Your task to perform on an android device: Search for pizza restaurants on Maps Image 0: 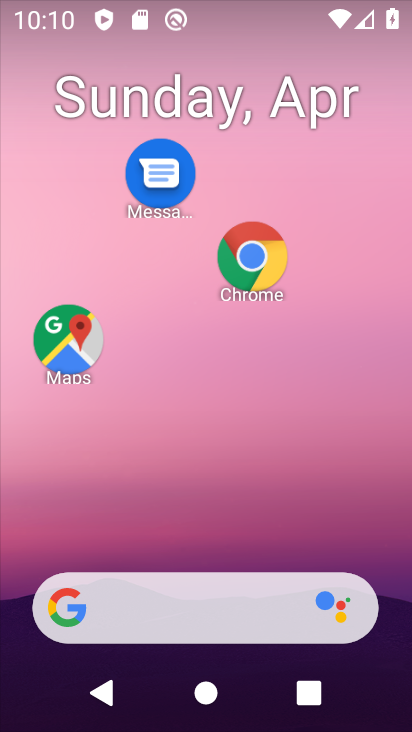
Step 0: drag from (223, 725) to (223, 141)
Your task to perform on an android device: Search for pizza restaurants on Maps Image 1: 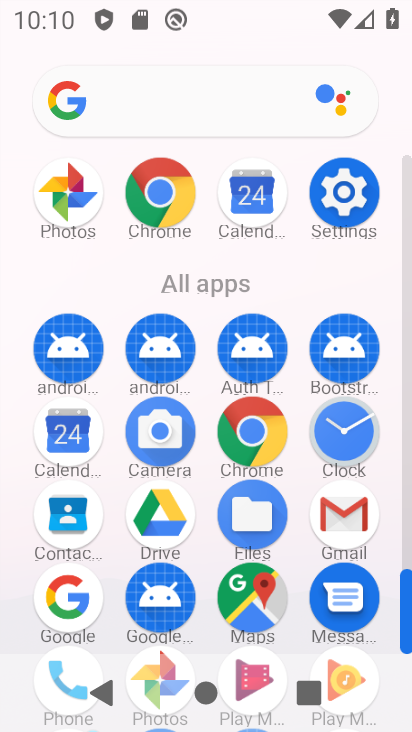
Step 1: click (246, 596)
Your task to perform on an android device: Search for pizza restaurants on Maps Image 2: 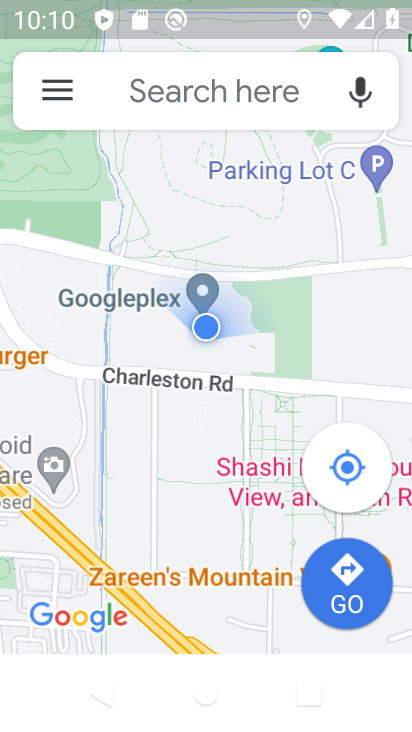
Step 2: click (206, 90)
Your task to perform on an android device: Search for pizza restaurants on Maps Image 3: 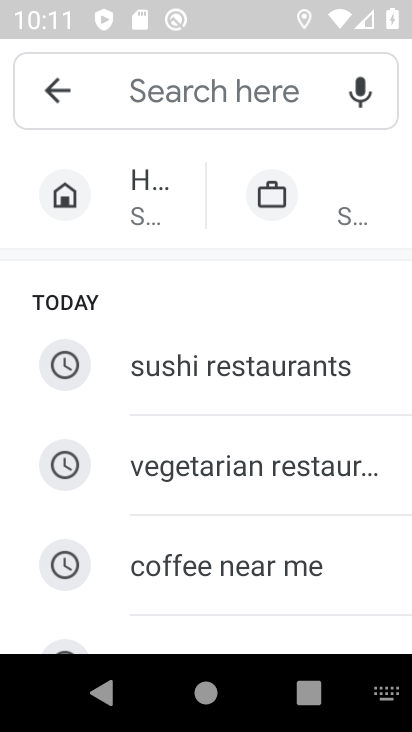
Step 3: type "pizza restaurants"
Your task to perform on an android device: Search for pizza restaurants on Maps Image 4: 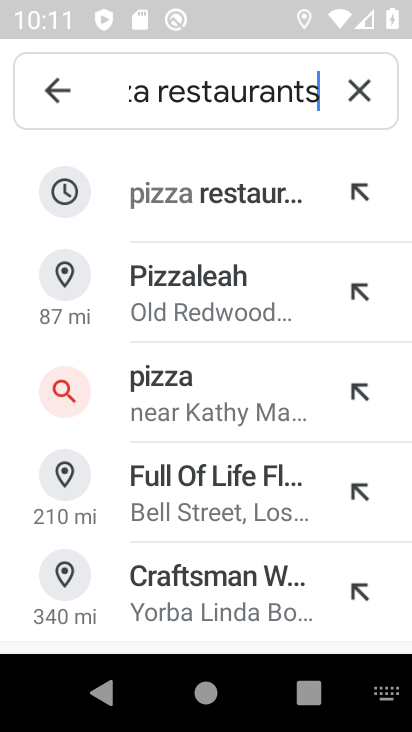
Step 4: click (218, 189)
Your task to perform on an android device: Search for pizza restaurants on Maps Image 5: 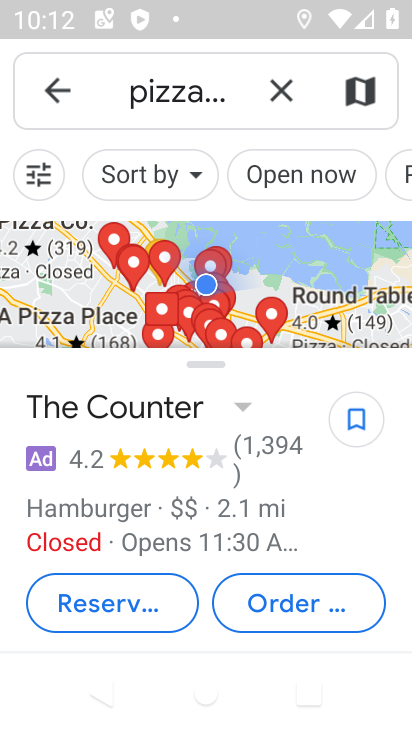
Step 5: task complete